Your task to perform on an android device: Open Chrome and go to settings Image 0: 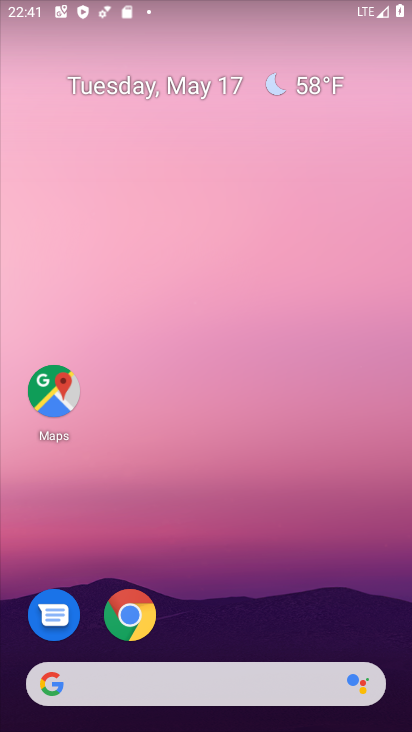
Step 0: click (152, 621)
Your task to perform on an android device: Open Chrome and go to settings Image 1: 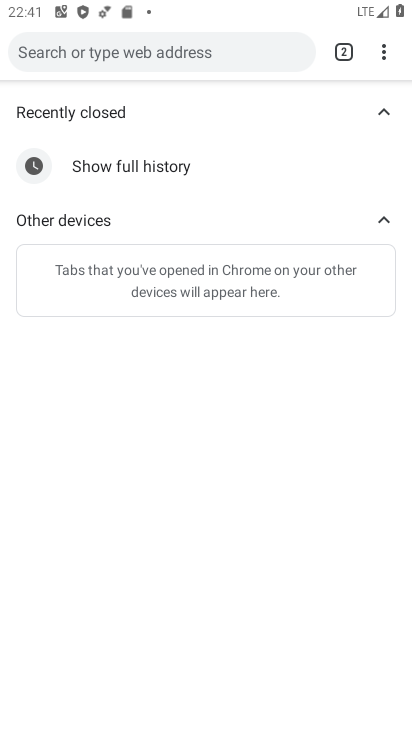
Step 1: task complete